Your task to perform on an android device: uninstall "Speedtest by Ookla" Image 0: 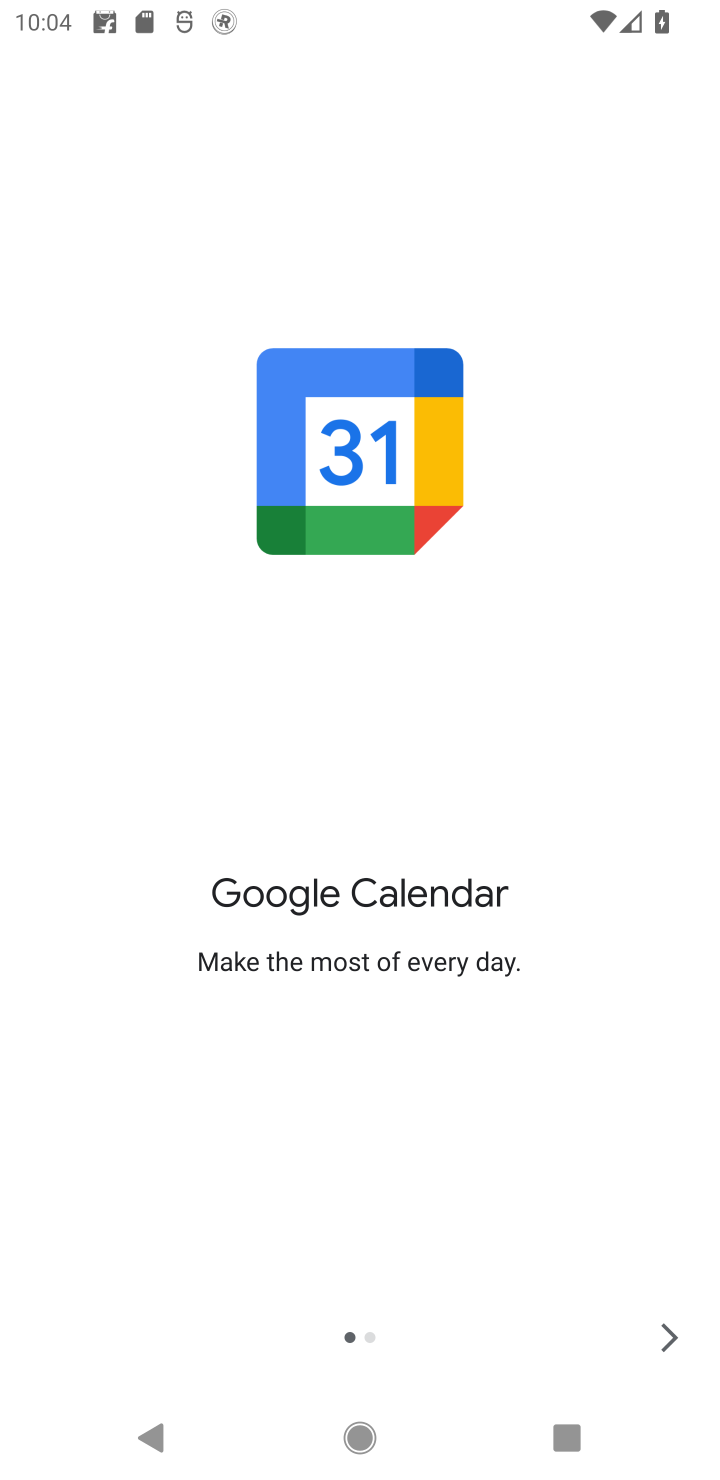
Step 0: press back button
Your task to perform on an android device: uninstall "Speedtest by Ookla" Image 1: 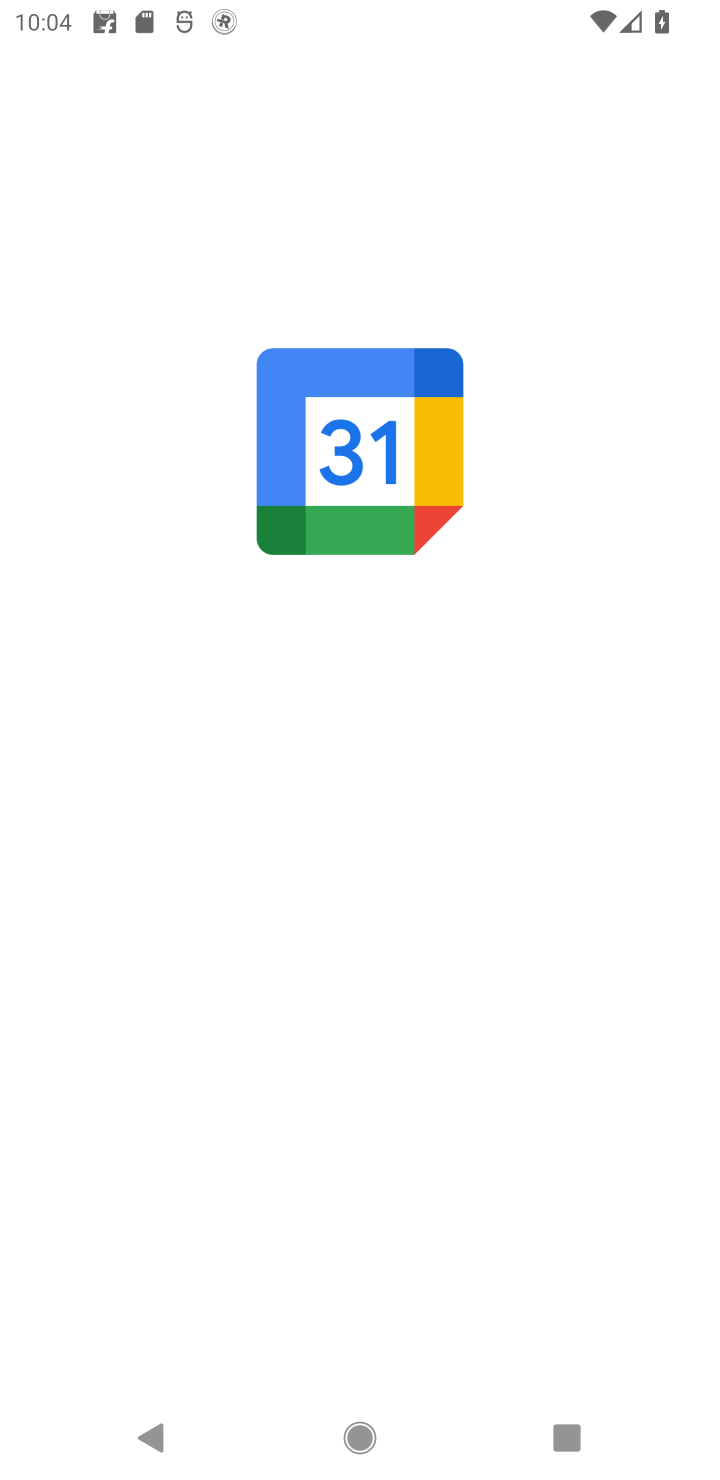
Step 1: press home button
Your task to perform on an android device: uninstall "Speedtest by Ookla" Image 2: 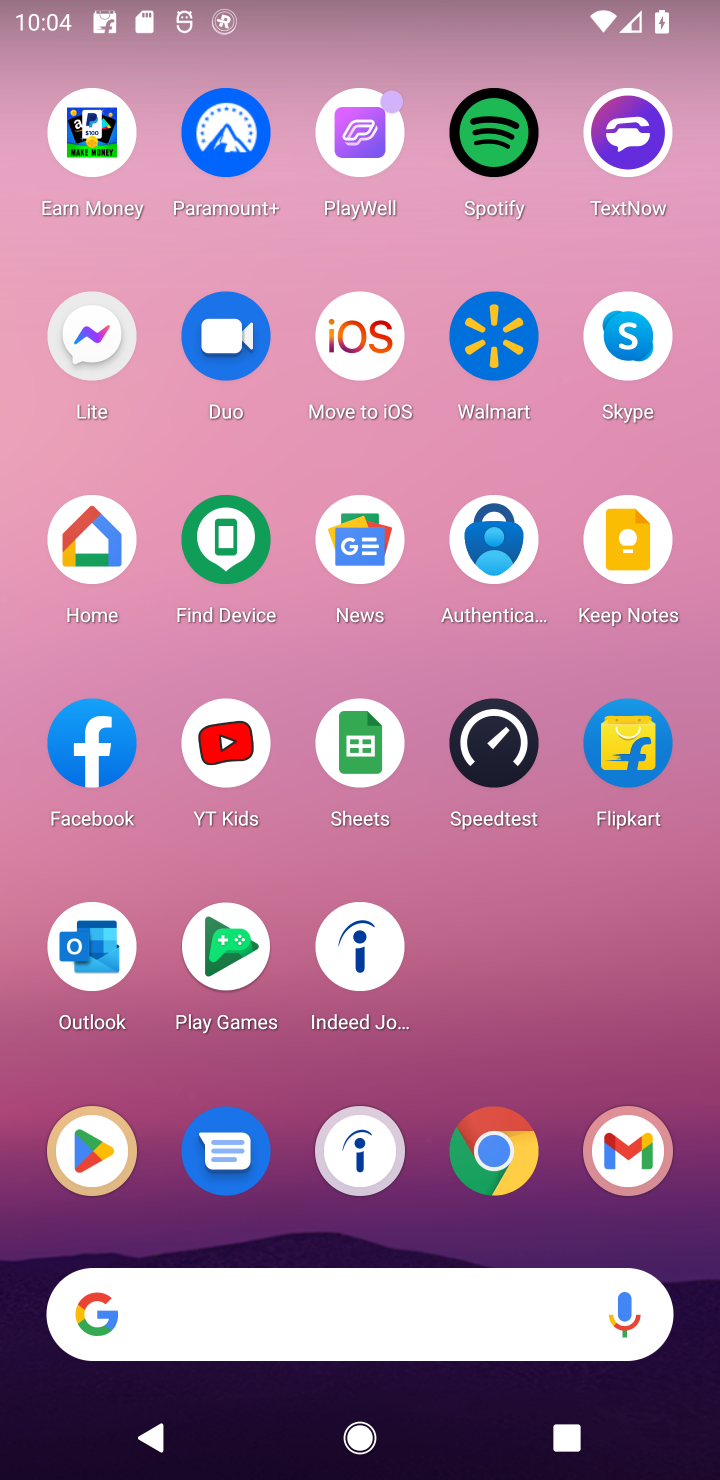
Step 2: click (104, 1134)
Your task to perform on an android device: uninstall "Speedtest by Ookla" Image 3: 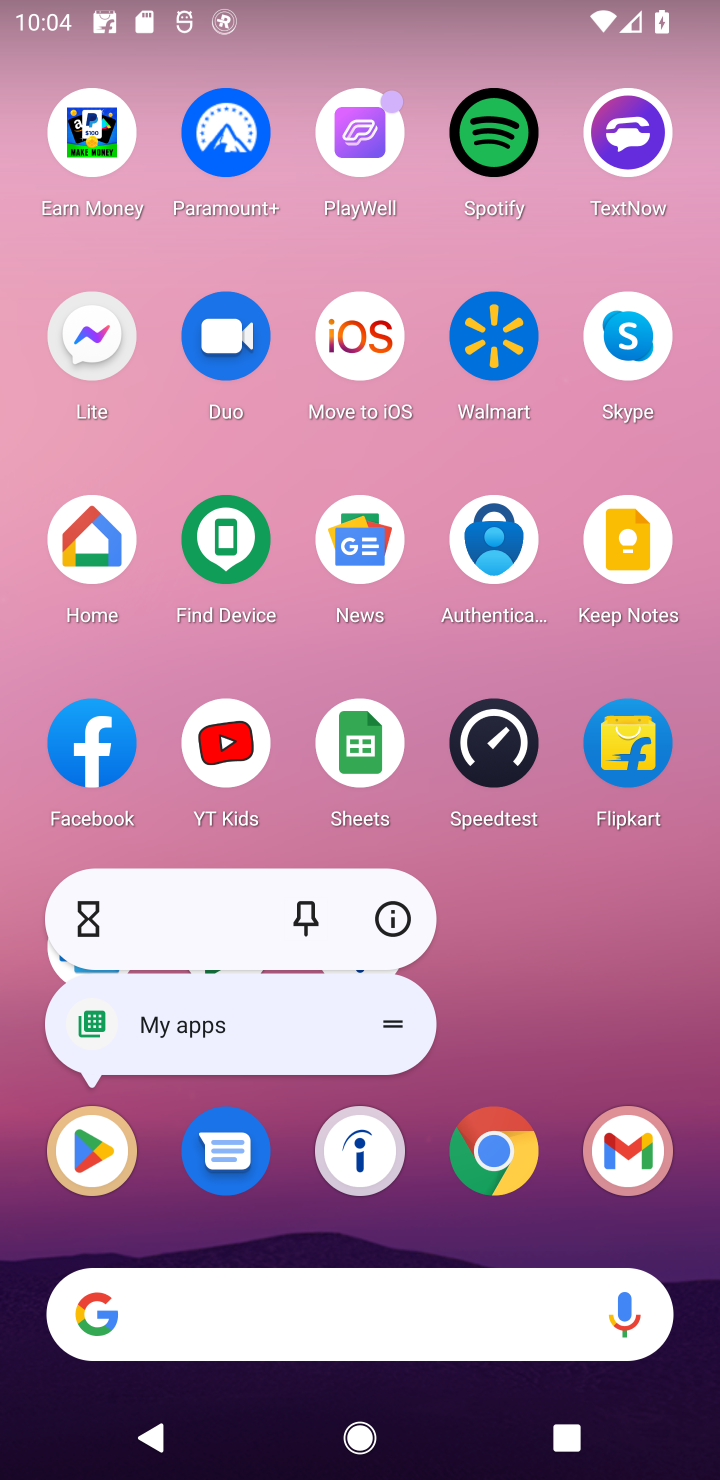
Step 3: click (110, 1161)
Your task to perform on an android device: uninstall "Speedtest by Ookla" Image 4: 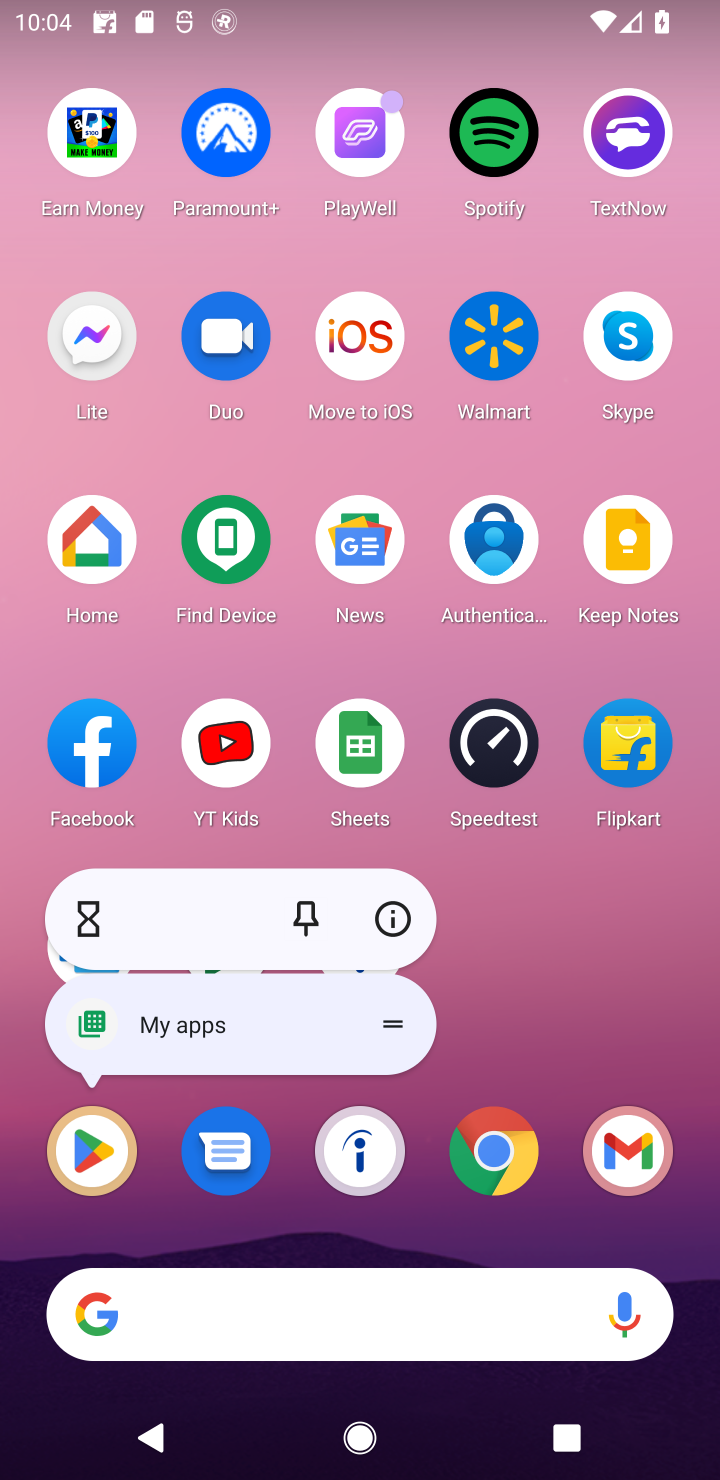
Step 4: click (110, 1161)
Your task to perform on an android device: uninstall "Speedtest by Ookla" Image 5: 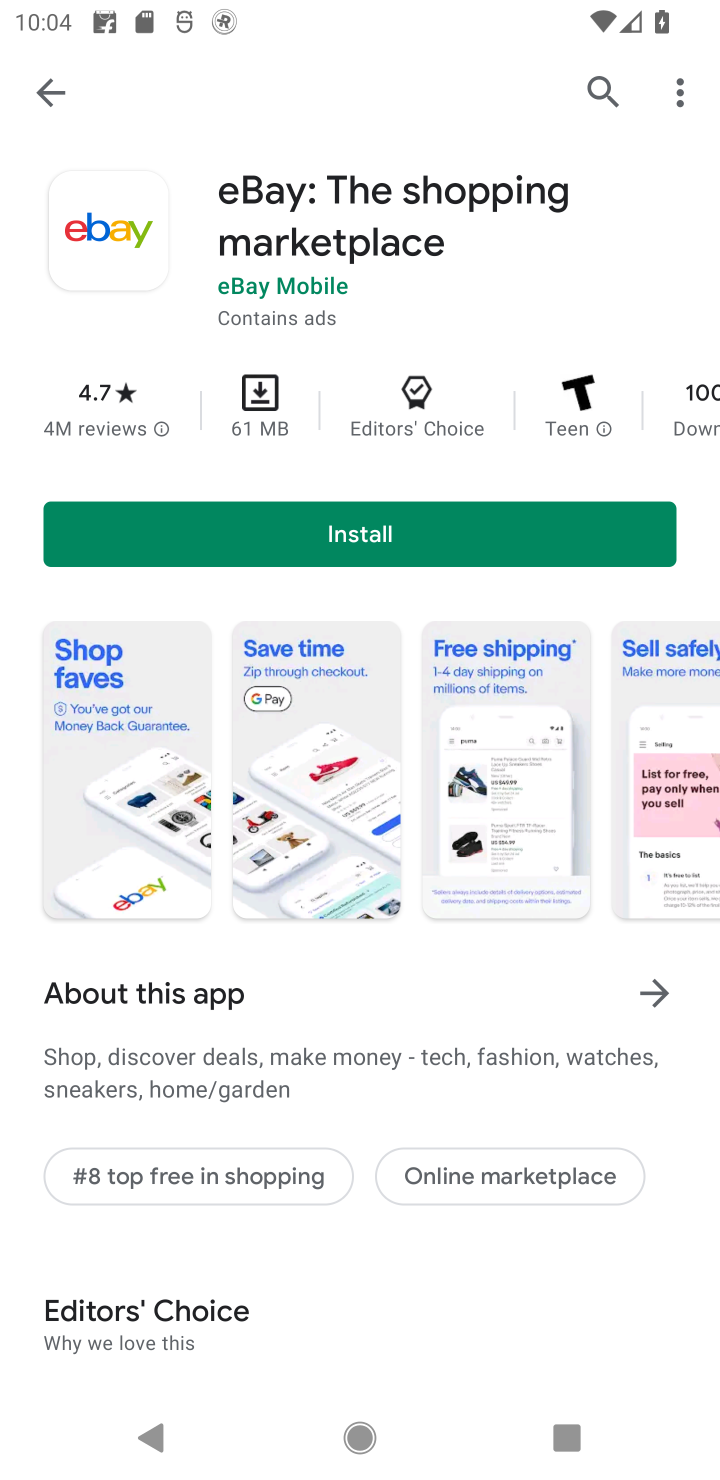
Step 5: click (594, 102)
Your task to perform on an android device: uninstall "Speedtest by Ookla" Image 6: 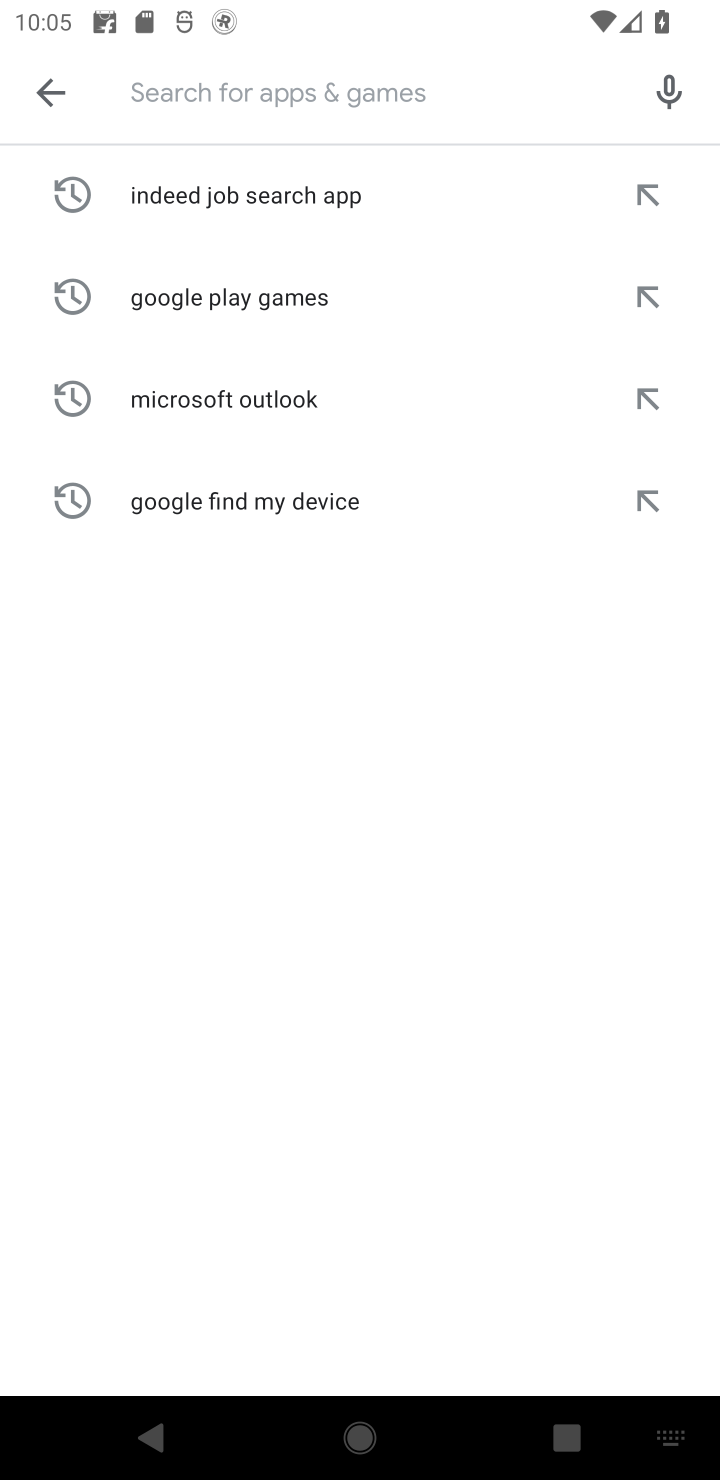
Step 6: type "Speedtest by Ookla"
Your task to perform on an android device: uninstall "Speedtest by Ookla" Image 7: 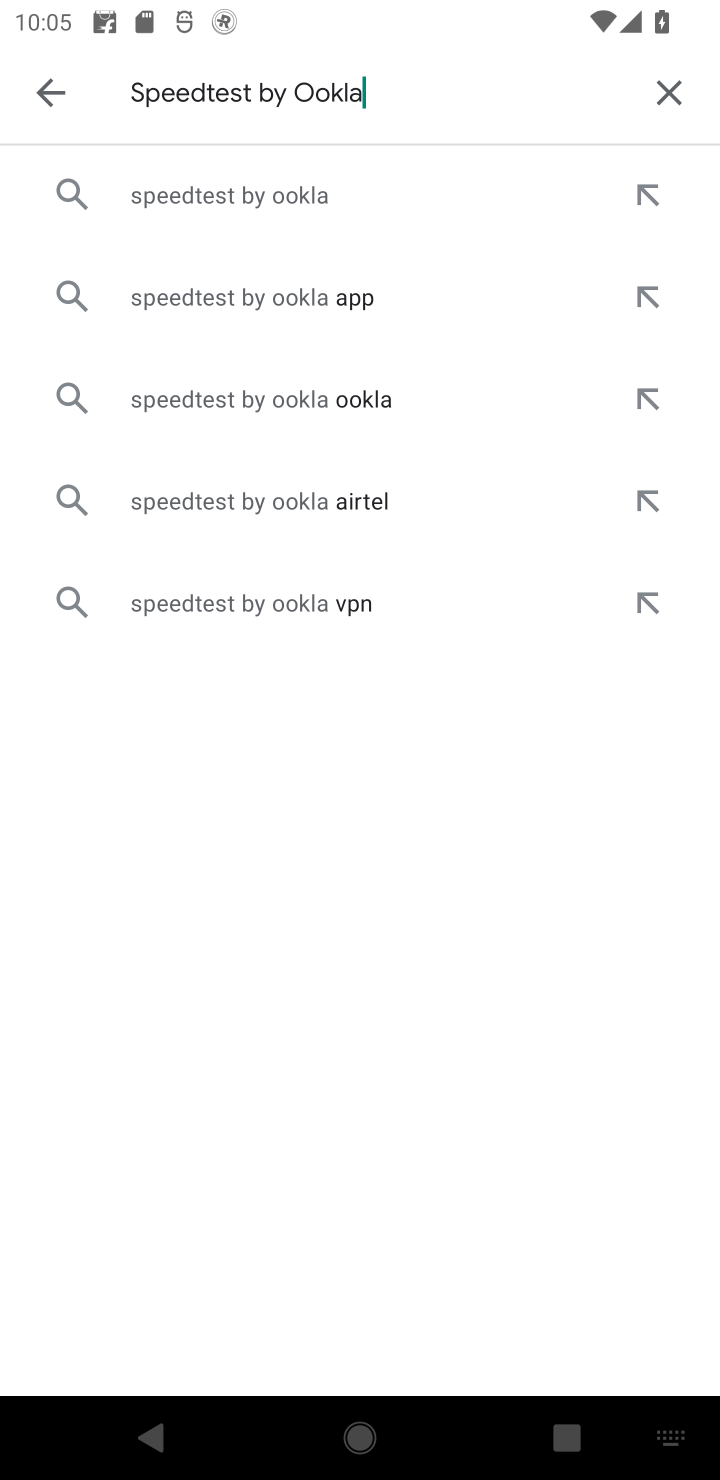
Step 7: click (397, 208)
Your task to perform on an android device: uninstall "Speedtest by Ookla" Image 8: 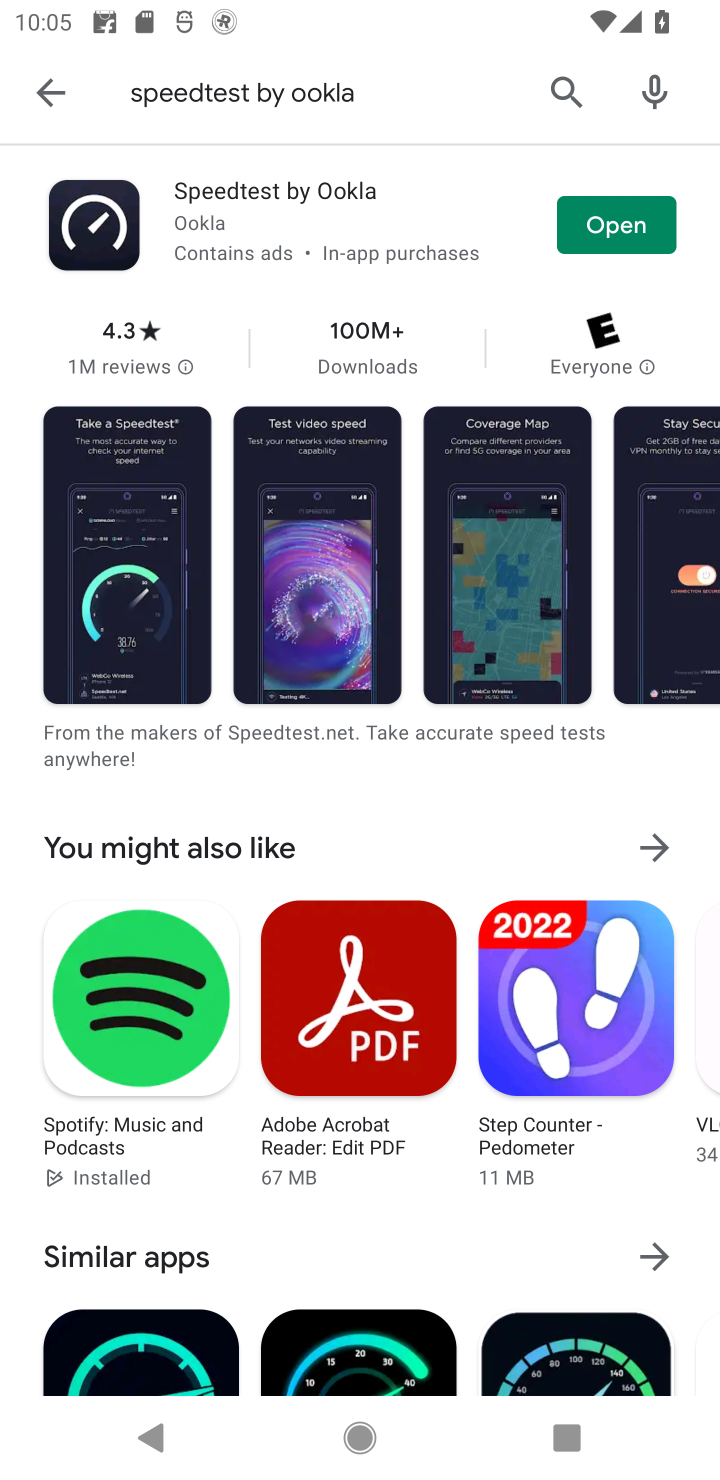
Step 8: click (375, 205)
Your task to perform on an android device: uninstall "Speedtest by Ookla" Image 9: 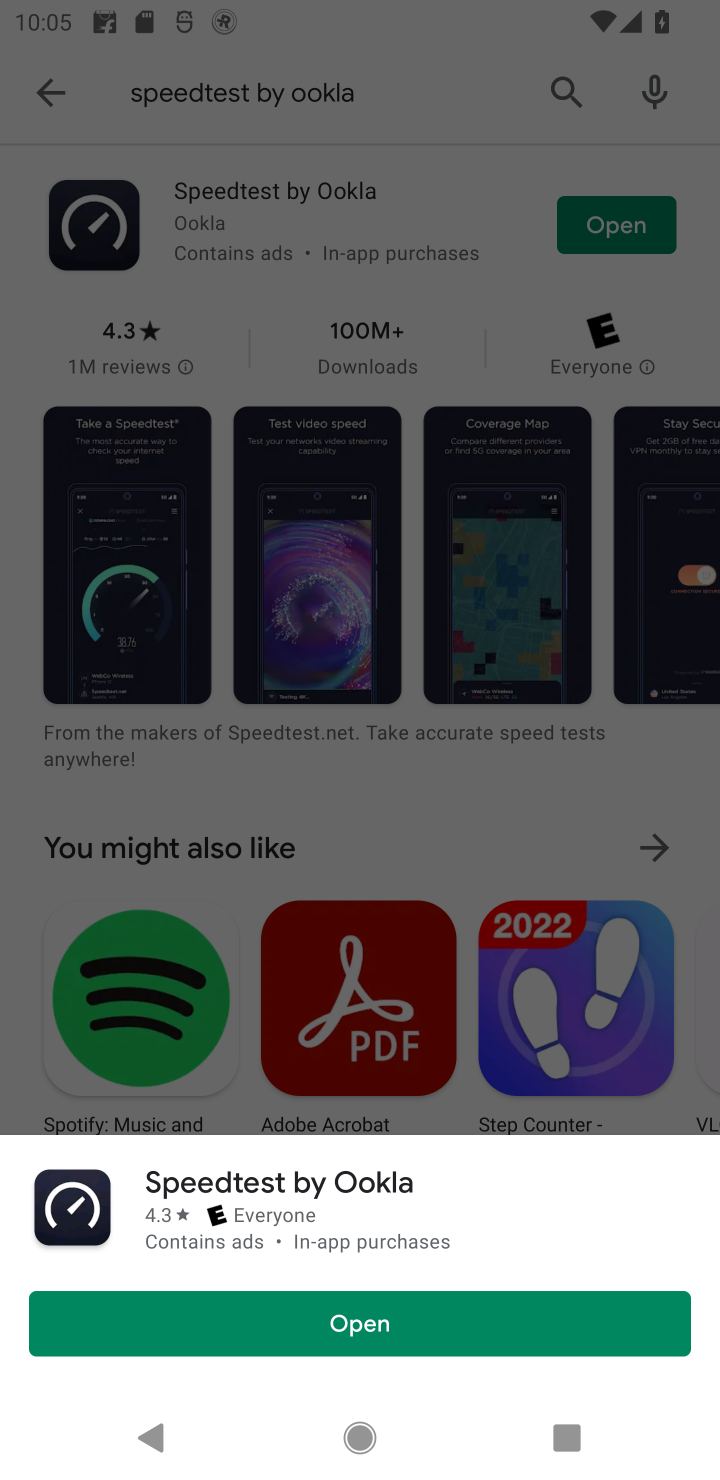
Step 9: click (261, 214)
Your task to perform on an android device: uninstall "Speedtest by Ookla" Image 10: 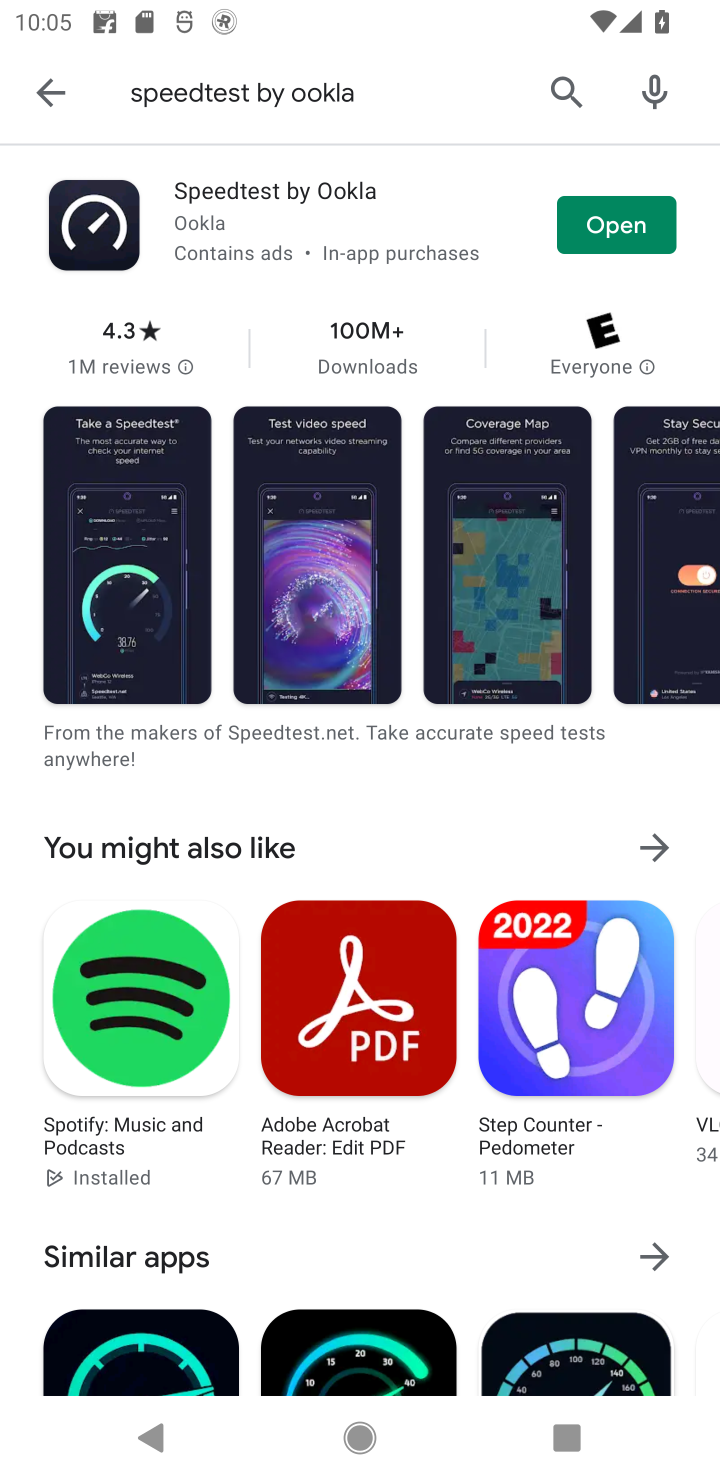
Step 10: click (261, 214)
Your task to perform on an android device: uninstall "Speedtest by Ookla" Image 11: 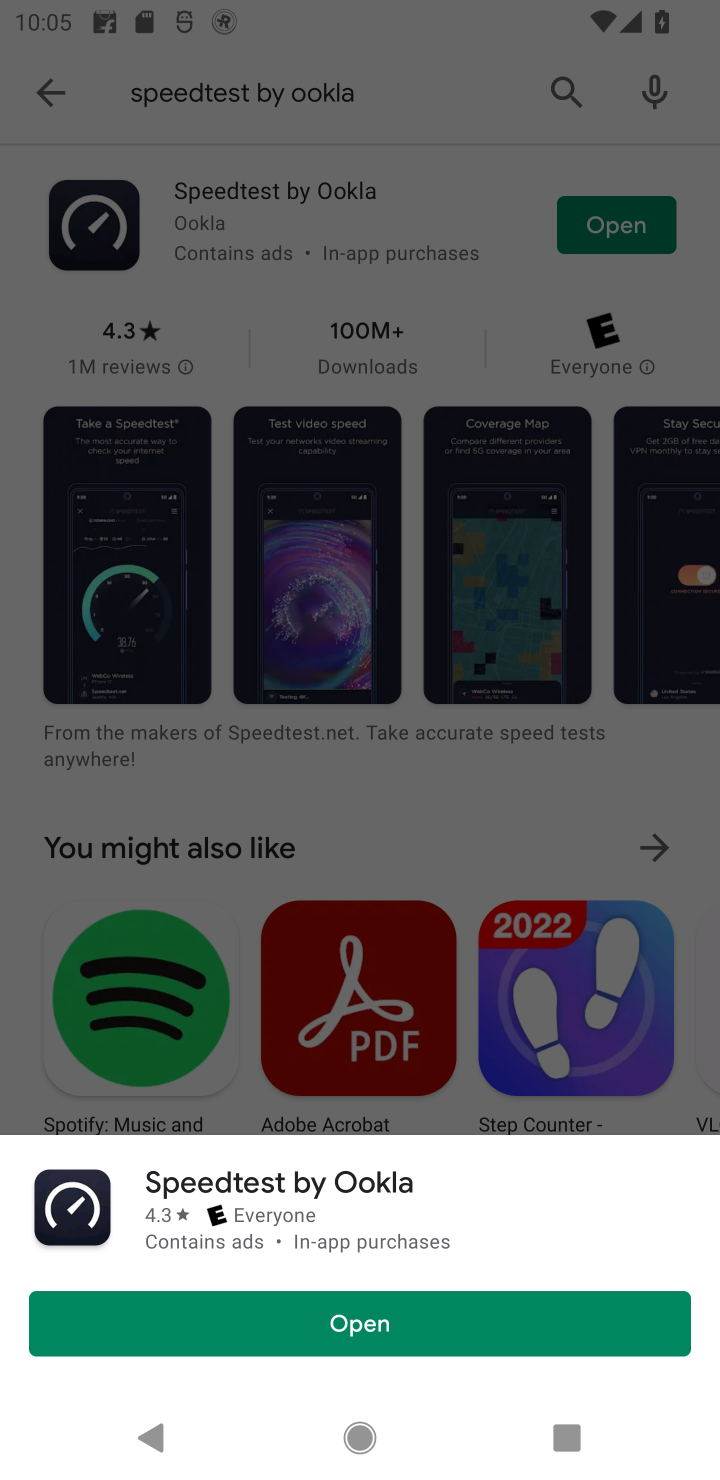
Step 11: click (261, 214)
Your task to perform on an android device: uninstall "Speedtest by Ookla" Image 12: 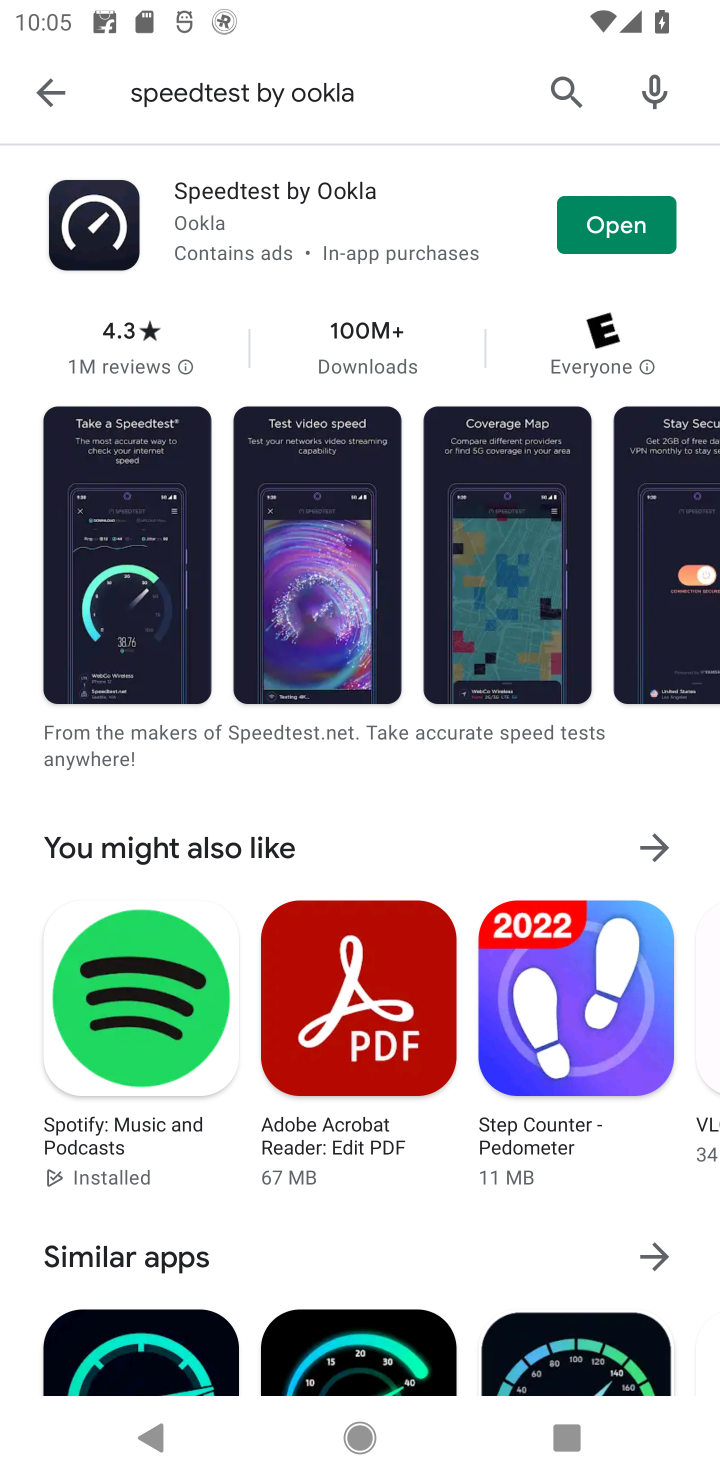
Step 12: click (257, 185)
Your task to perform on an android device: uninstall "Speedtest by Ookla" Image 13: 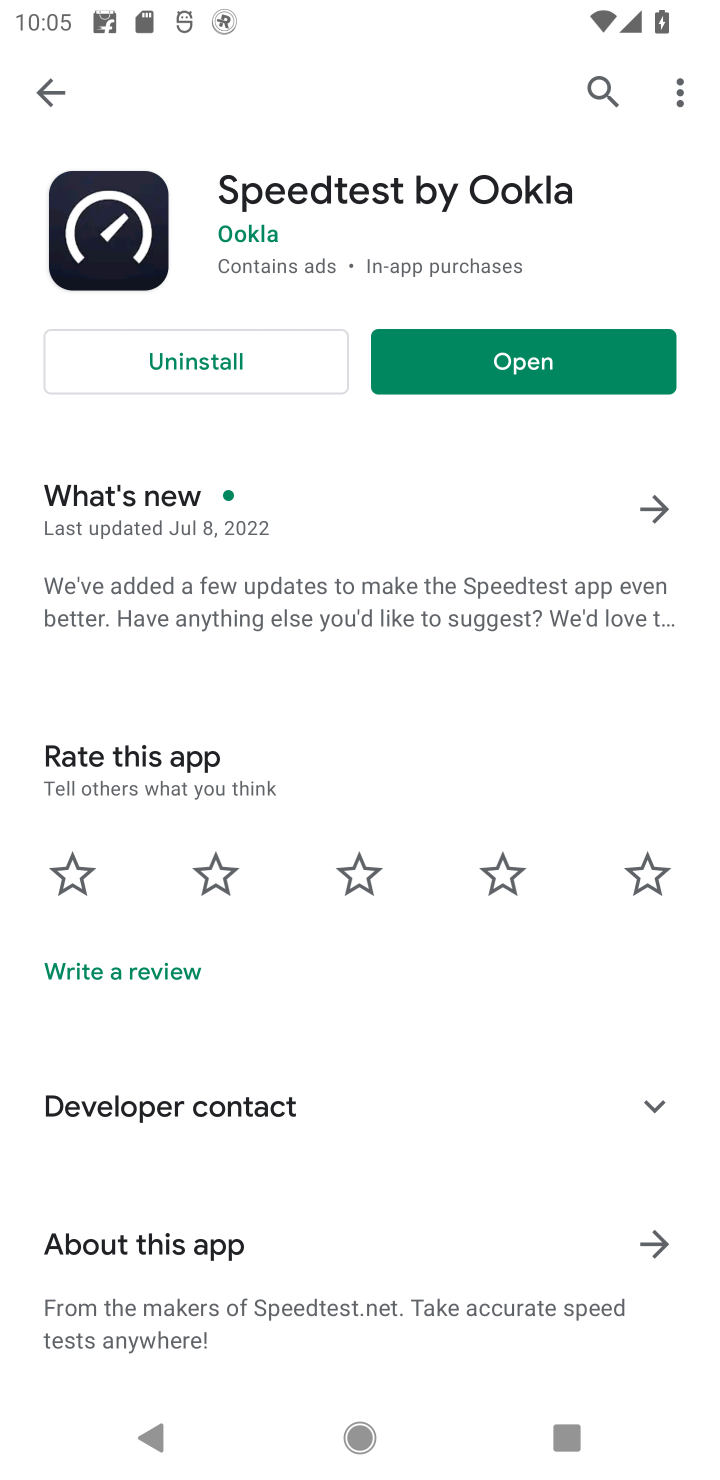
Step 13: click (235, 356)
Your task to perform on an android device: uninstall "Speedtest by Ookla" Image 14: 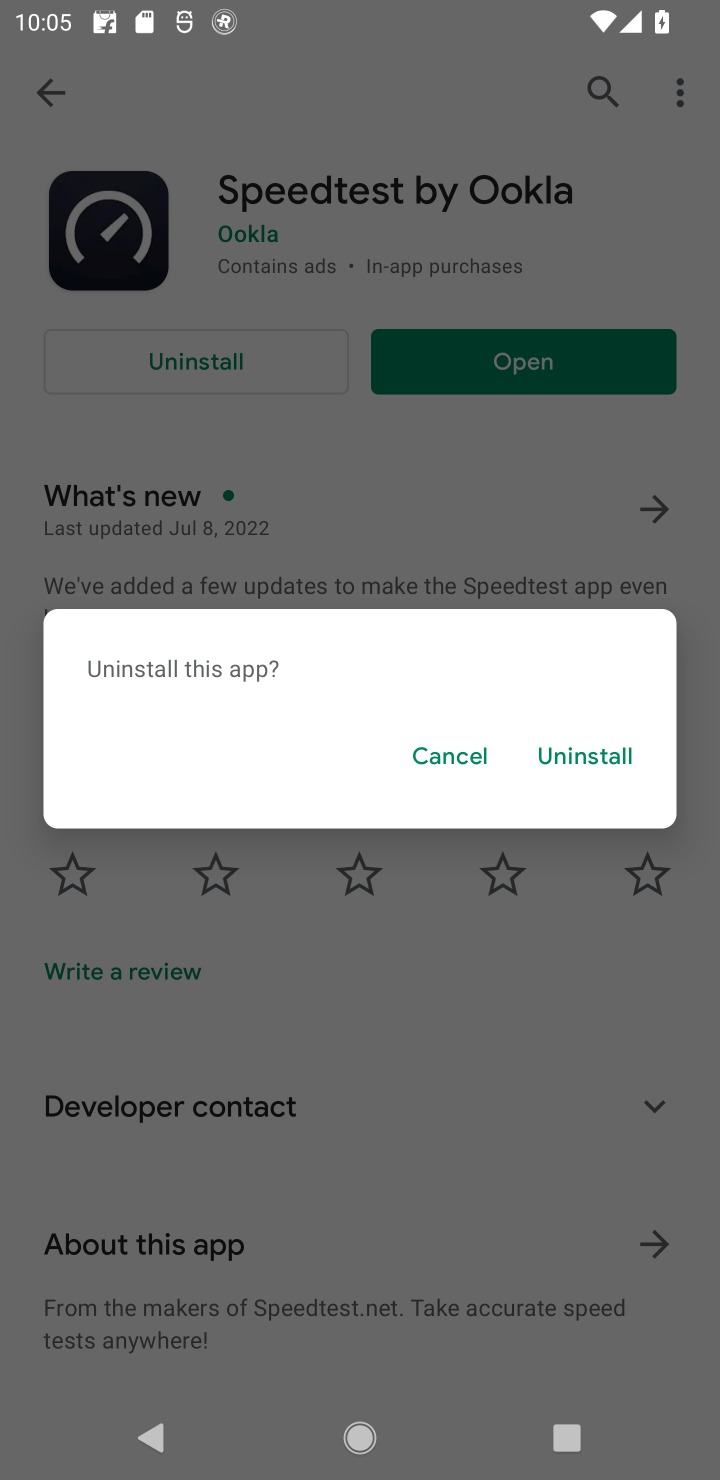
Step 14: click (575, 756)
Your task to perform on an android device: uninstall "Speedtest by Ookla" Image 15: 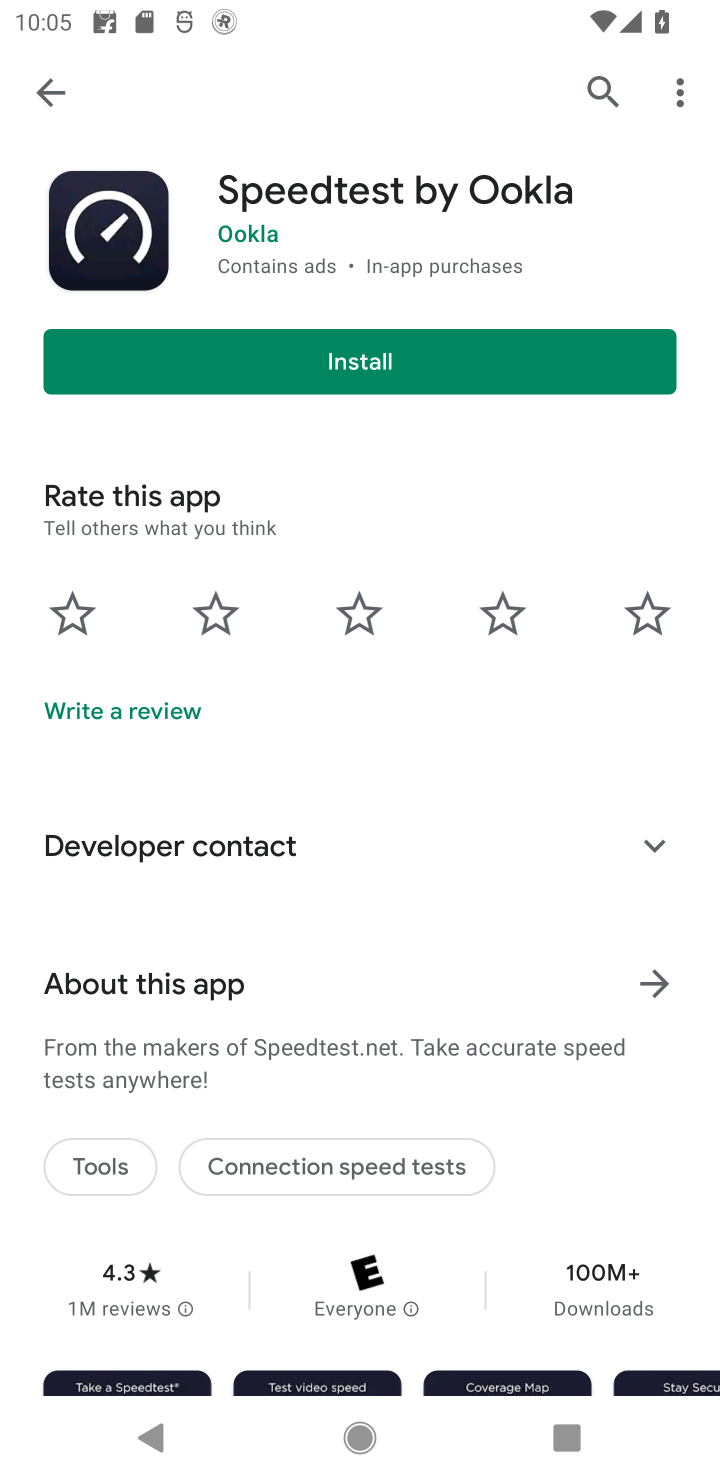
Step 15: task complete